Your task to perform on an android device: add a contact Image 0: 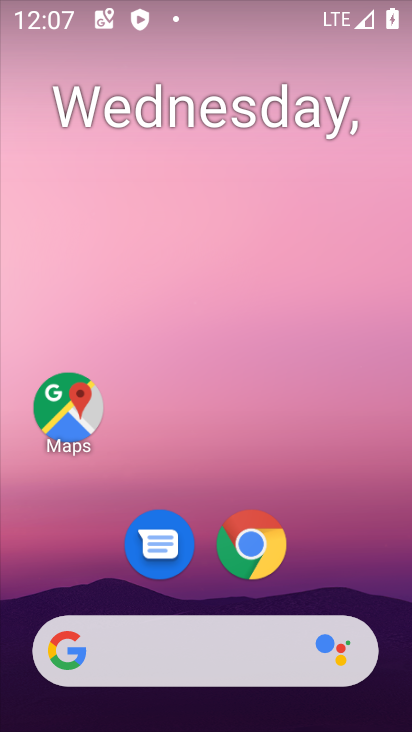
Step 0: drag from (405, 572) to (310, 73)
Your task to perform on an android device: add a contact Image 1: 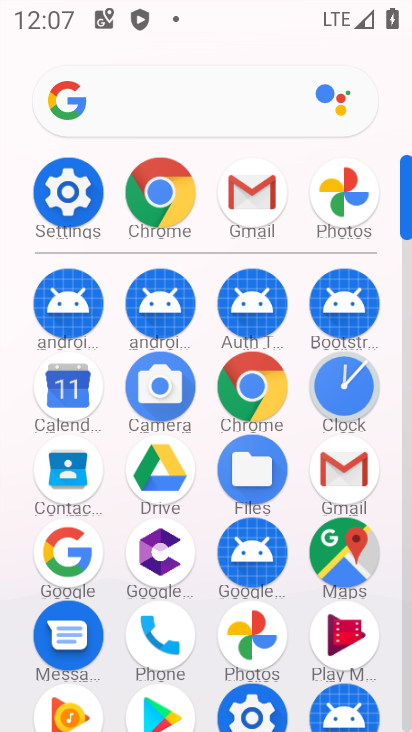
Step 1: click (72, 473)
Your task to perform on an android device: add a contact Image 2: 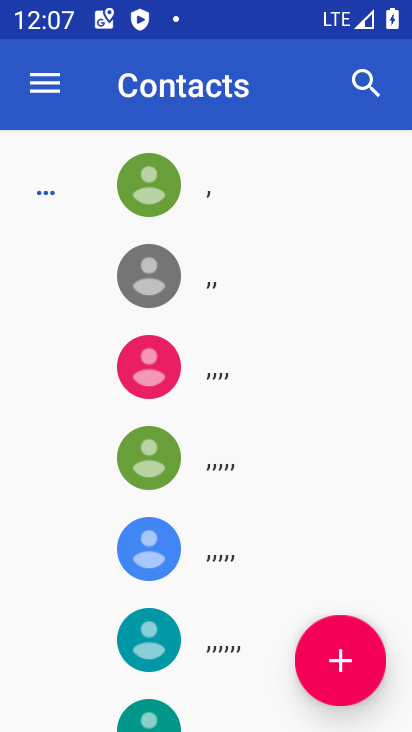
Step 2: click (392, 644)
Your task to perform on an android device: add a contact Image 3: 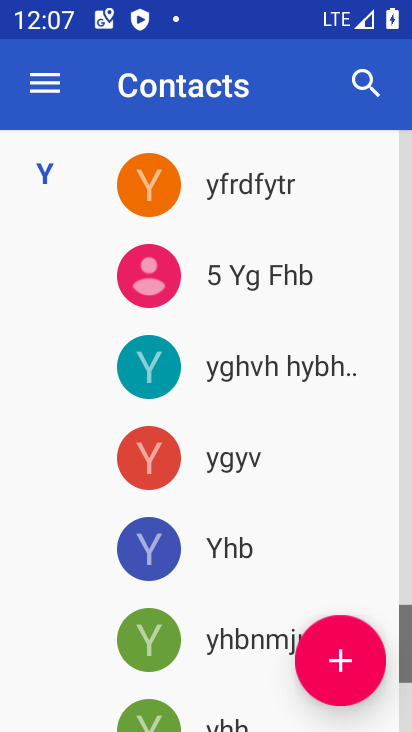
Step 3: click (357, 657)
Your task to perform on an android device: add a contact Image 4: 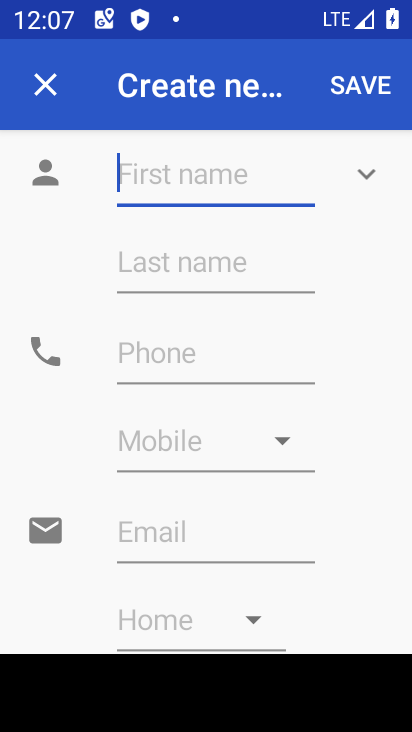
Step 4: type "bomb"
Your task to perform on an android device: add a contact Image 5: 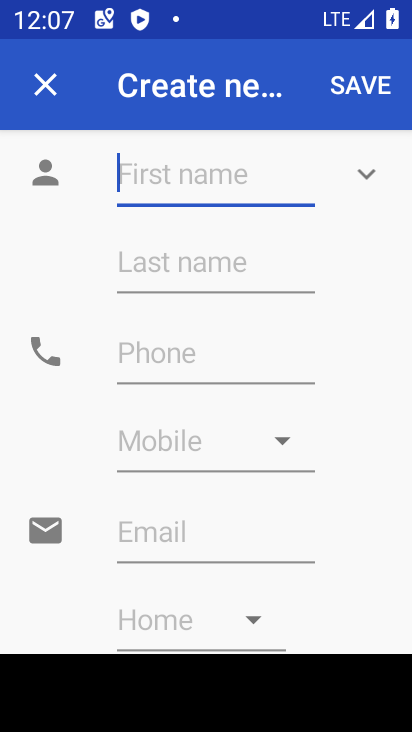
Step 5: click (384, 80)
Your task to perform on an android device: add a contact Image 6: 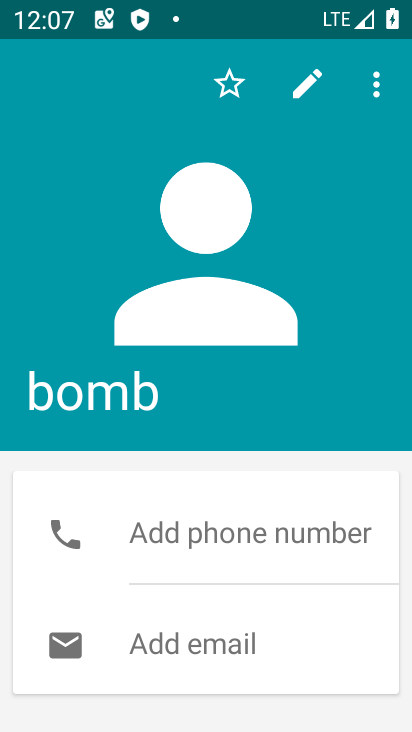
Step 6: task complete